Your task to perform on an android device: Go to location settings Image 0: 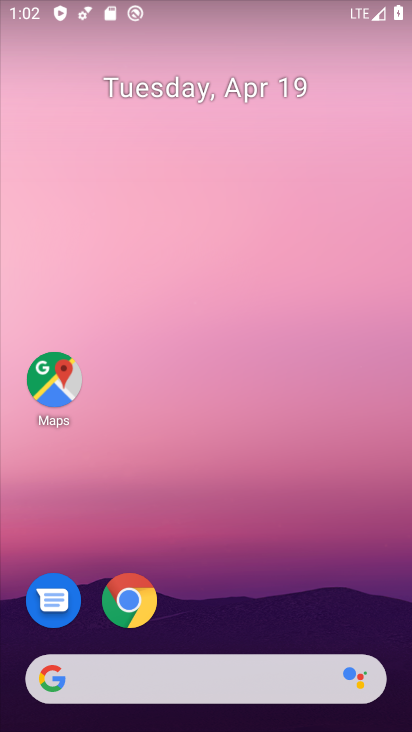
Step 0: drag from (225, 623) to (128, 26)
Your task to perform on an android device: Go to location settings Image 1: 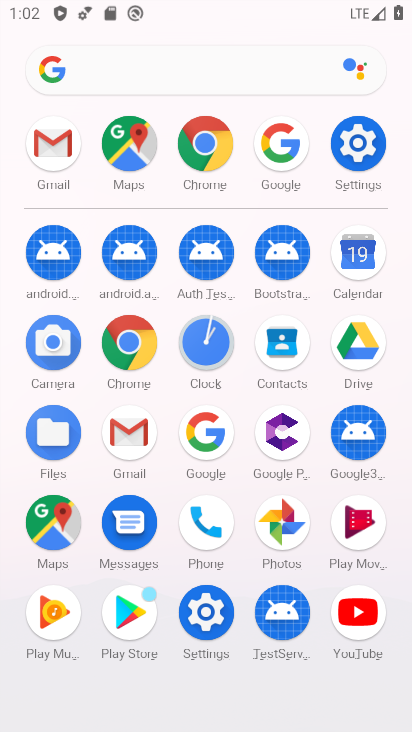
Step 1: click (353, 176)
Your task to perform on an android device: Go to location settings Image 2: 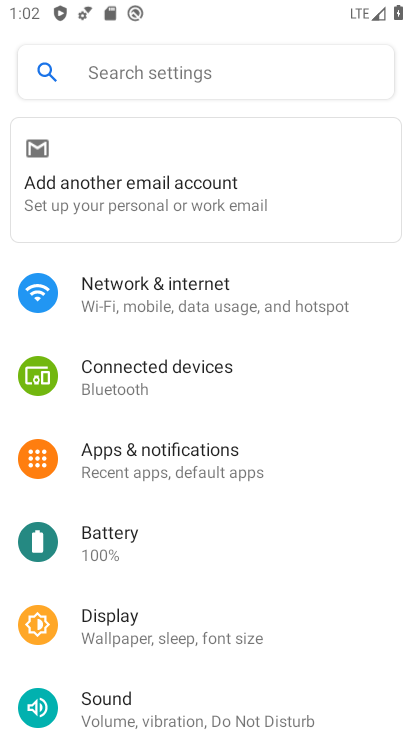
Step 2: drag from (268, 565) to (225, 268)
Your task to perform on an android device: Go to location settings Image 3: 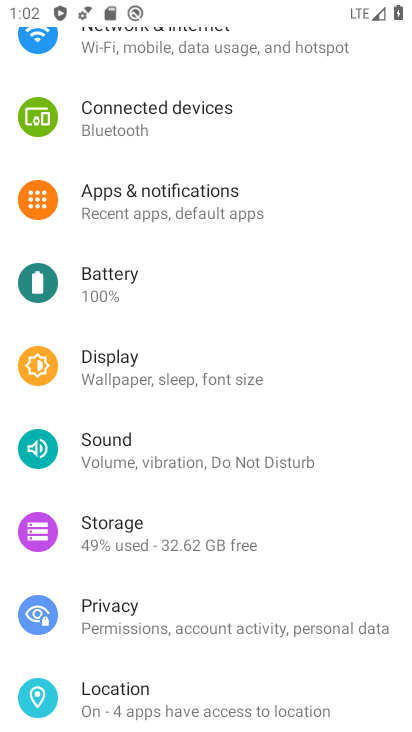
Step 3: click (120, 690)
Your task to perform on an android device: Go to location settings Image 4: 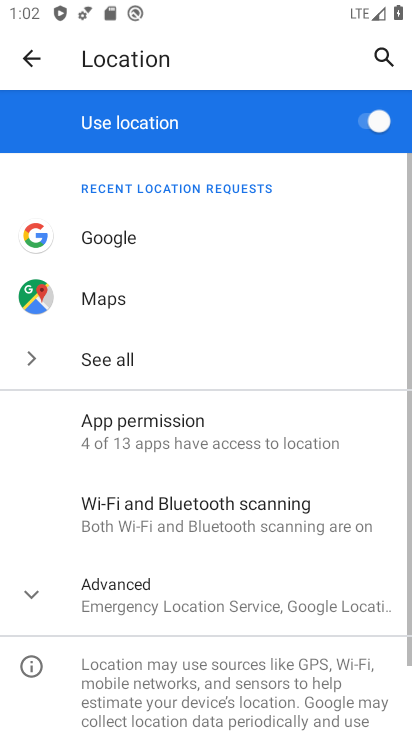
Step 4: click (177, 608)
Your task to perform on an android device: Go to location settings Image 5: 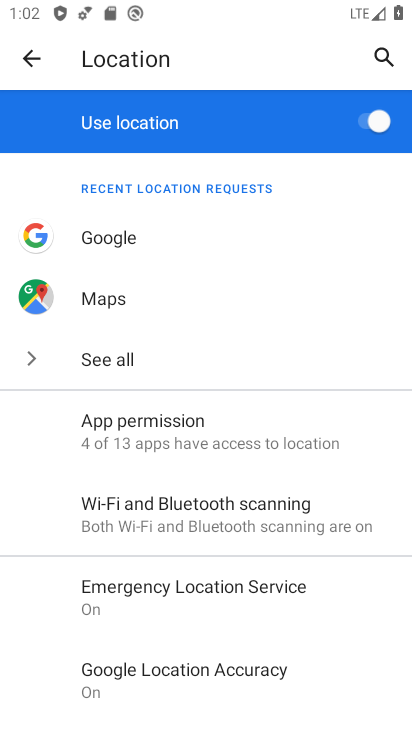
Step 5: task complete